Your task to perform on an android device: turn off notifications in google photos Image 0: 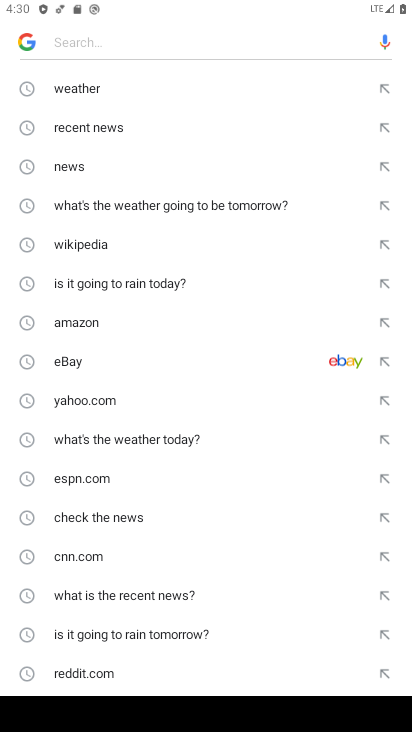
Step 0: press back button
Your task to perform on an android device: turn off notifications in google photos Image 1: 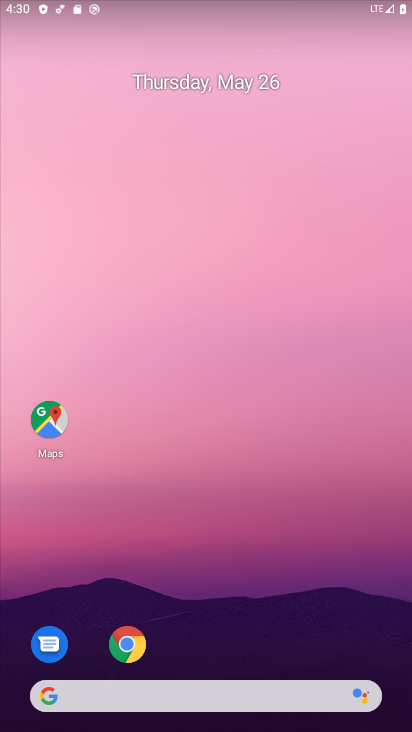
Step 1: drag from (231, 646) to (204, 29)
Your task to perform on an android device: turn off notifications in google photos Image 2: 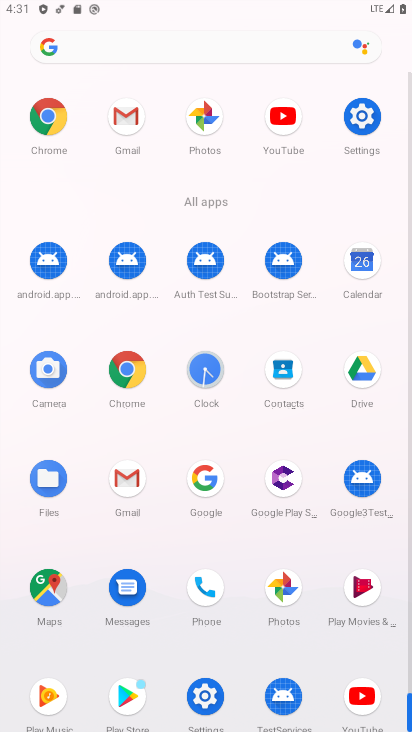
Step 2: click (284, 586)
Your task to perform on an android device: turn off notifications in google photos Image 3: 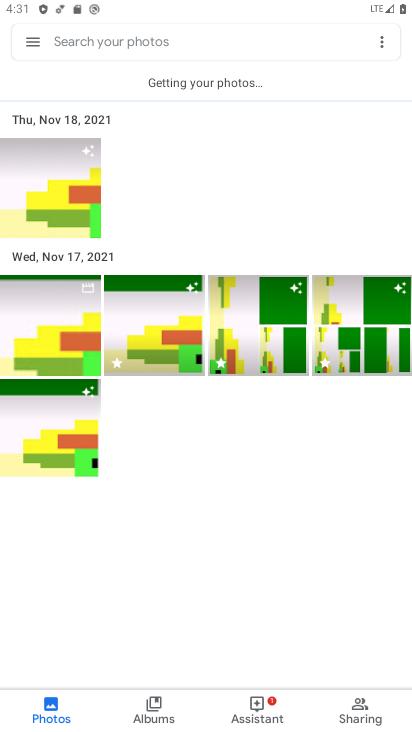
Step 3: click (32, 43)
Your task to perform on an android device: turn off notifications in google photos Image 4: 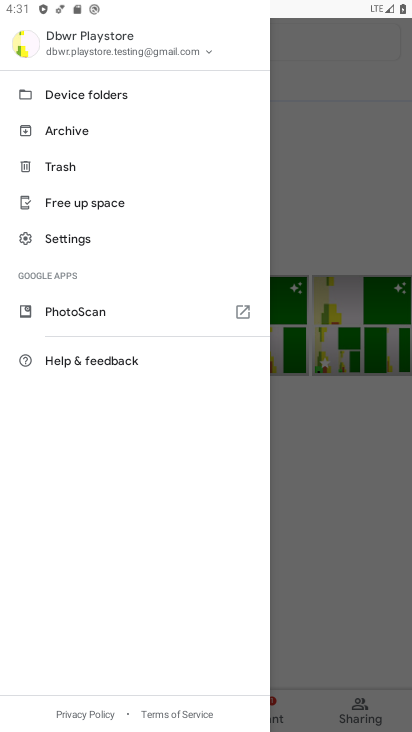
Step 4: click (72, 234)
Your task to perform on an android device: turn off notifications in google photos Image 5: 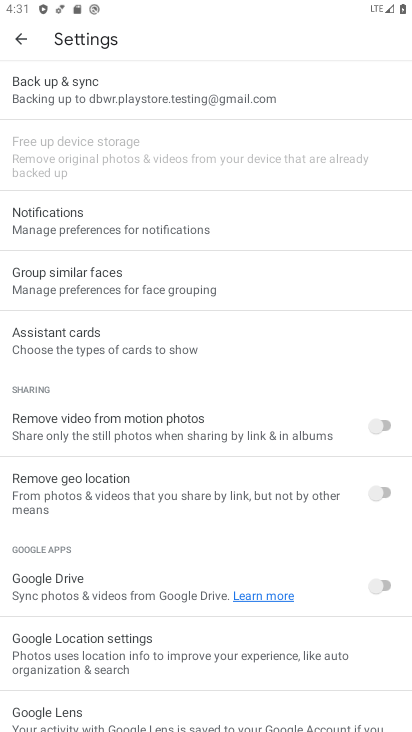
Step 5: drag from (144, 512) to (168, 244)
Your task to perform on an android device: turn off notifications in google photos Image 6: 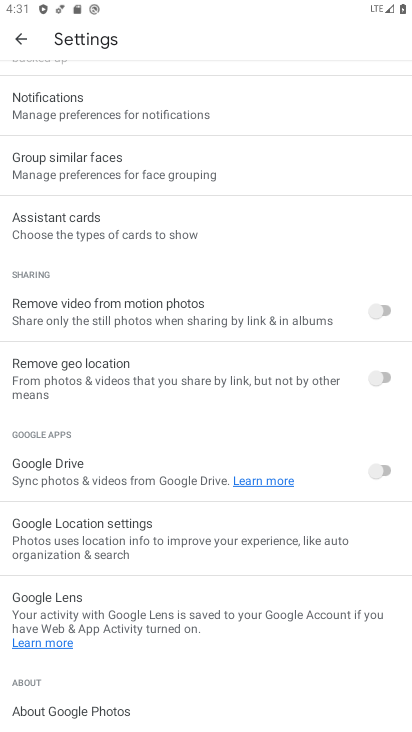
Step 6: drag from (154, 529) to (197, 189)
Your task to perform on an android device: turn off notifications in google photos Image 7: 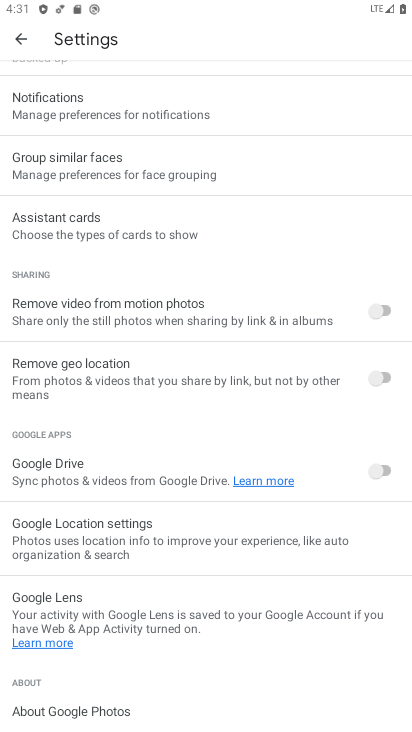
Step 7: drag from (194, 198) to (161, 578)
Your task to perform on an android device: turn off notifications in google photos Image 8: 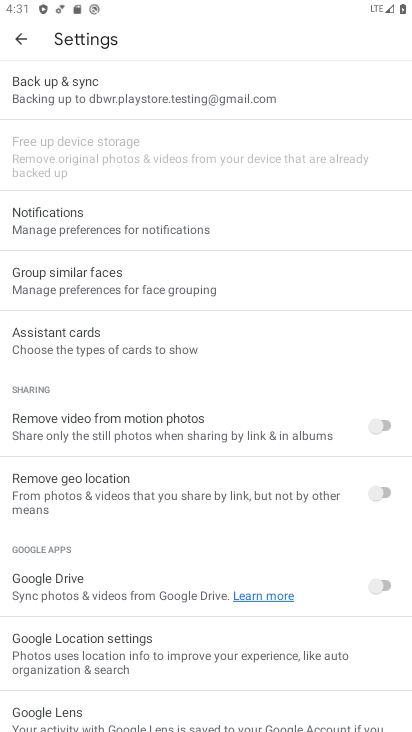
Step 8: click (168, 218)
Your task to perform on an android device: turn off notifications in google photos Image 9: 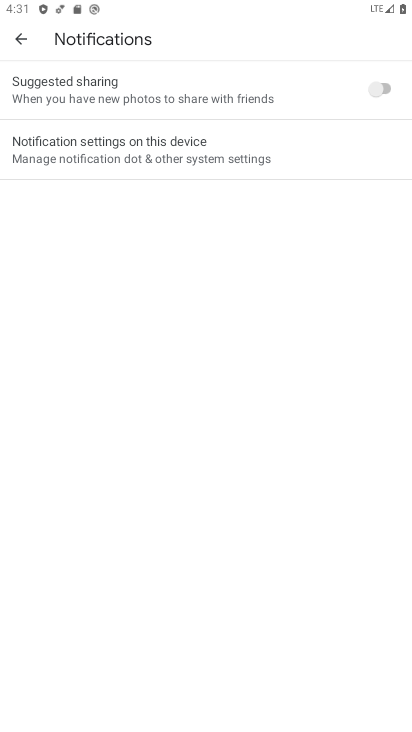
Step 9: click (205, 149)
Your task to perform on an android device: turn off notifications in google photos Image 10: 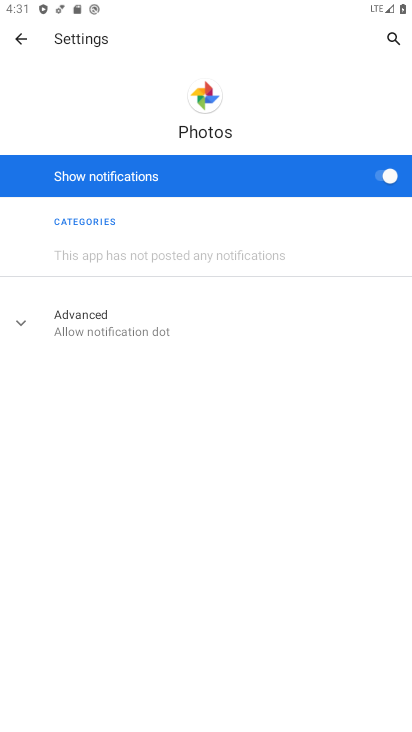
Step 10: click (389, 174)
Your task to perform on an android device: turn off notifications in google photos Image 11: 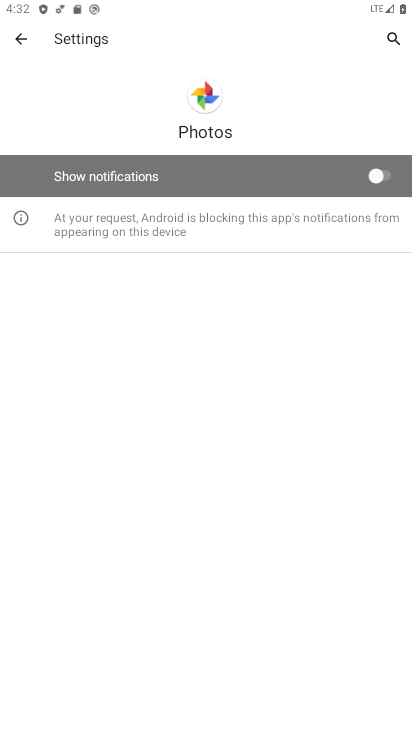
Step 11: task complete